Your task to perform on an android device: change notification settings in the gmail app Image 0: 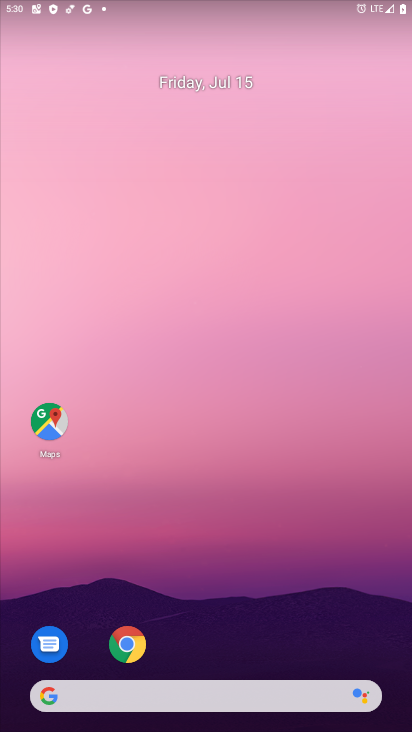
Step 0: drag from (215, 655) to (231, 28)
Your task to perform on an android device: change notification settings in the gmail app Image 1: 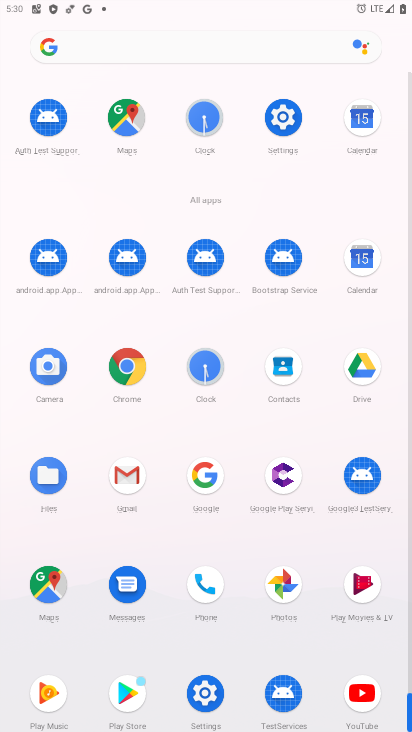
Step 1: click (137, 468)
Your task to perform on an android device: change notification settings in the gmail app Image 2: 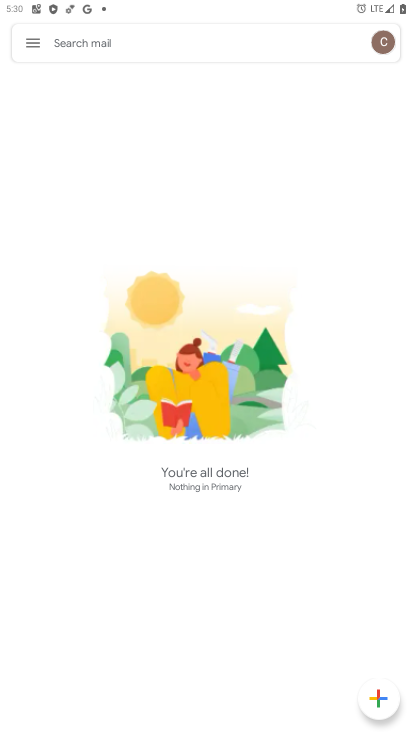
Step 2: click (40, 48)
Your task to perform on an android device: change notification settings in the gmail app Image 3: 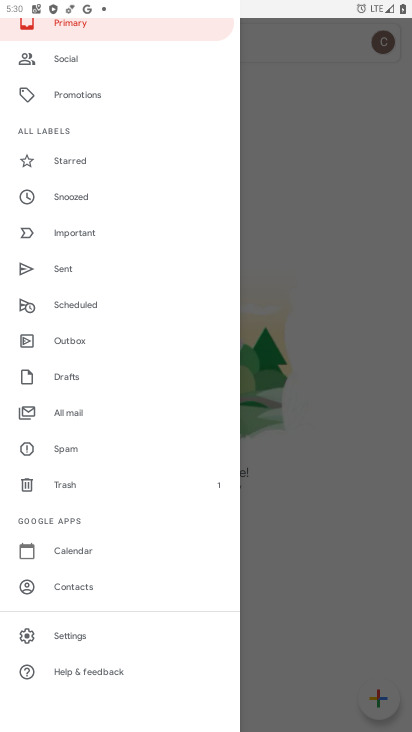
Step 3: drag from (97, 626) to (88, 487)
Your task to perform on an android device: change notification settings in the gmail app Image 4: 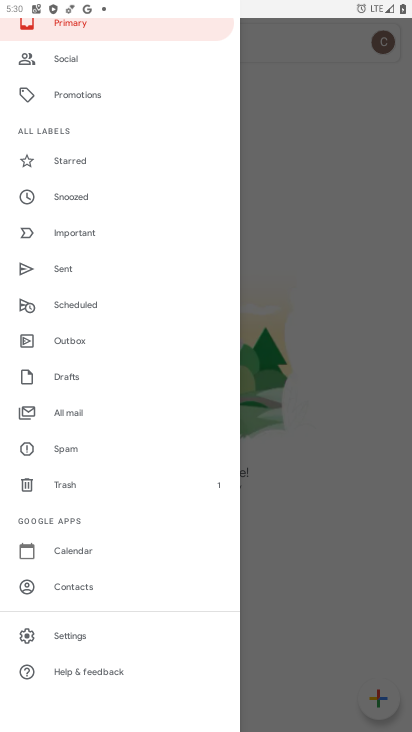
Step 4: click (63, 633)
Your task to perform on an android device: change notification settings in the gmail app Image 5: 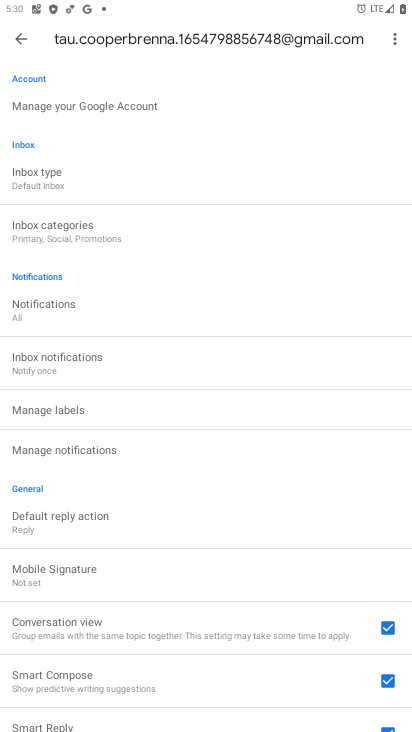
Step 5: click (74, 314)
Your task to perform on an android device: change notification settings in the gmail app Image 6: 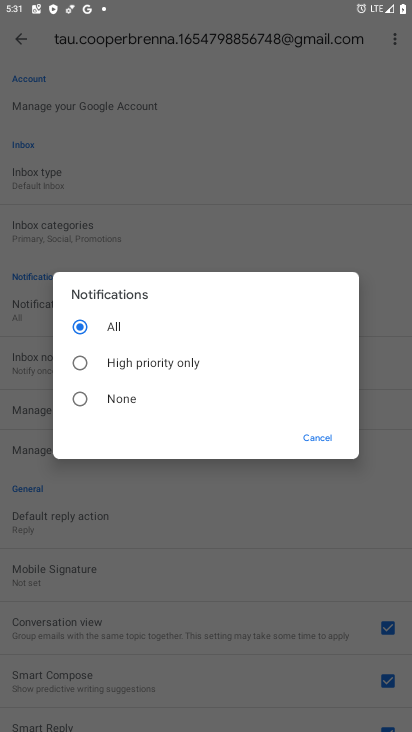
Step 6: drag from (113, 361) to (162, 128)
Your task to perform on an android device: change notification settings in the gmail app Image 7: 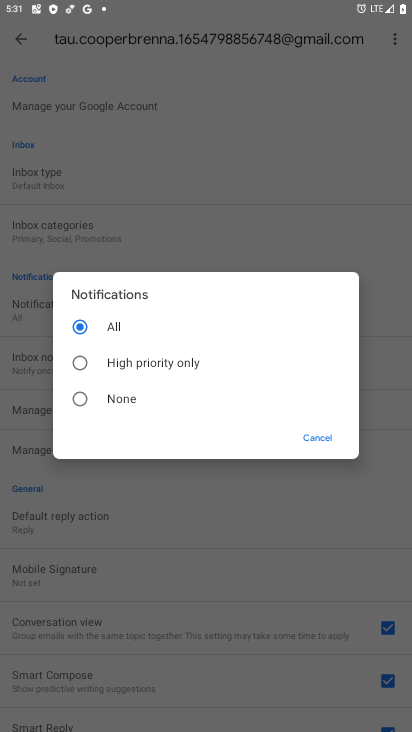
Step 7: click (162, 128)
Your task to perform on an android device: change notification settings in the gmail app Image 8: 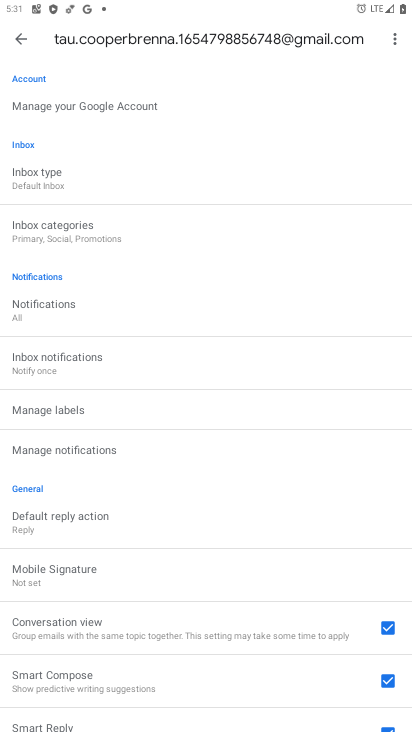
Step 8: click (23, 41)
Your task to perform on an android device: change notification settings in the gmail app Image 9: 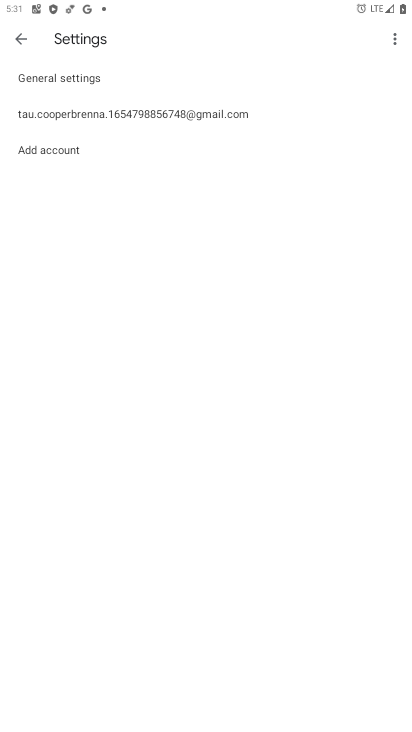
Step 9: click (76, 65)
Your task to perform on an android device: change notification settings in the gmail app Image 10: 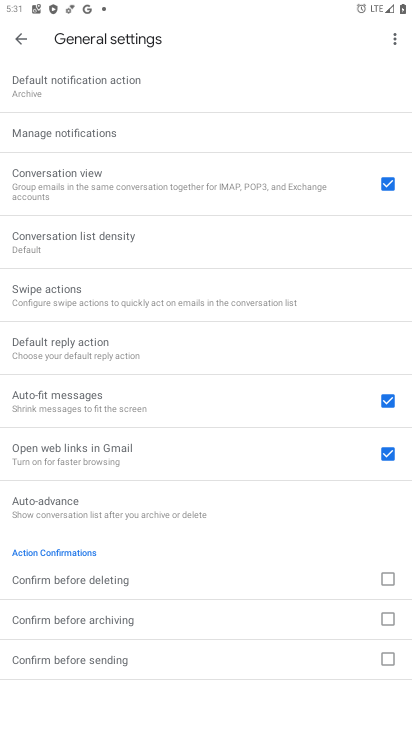
Step 10: click (123, 142)
Your task to perform on an android device: change notification settings in the gmail app Image 11: 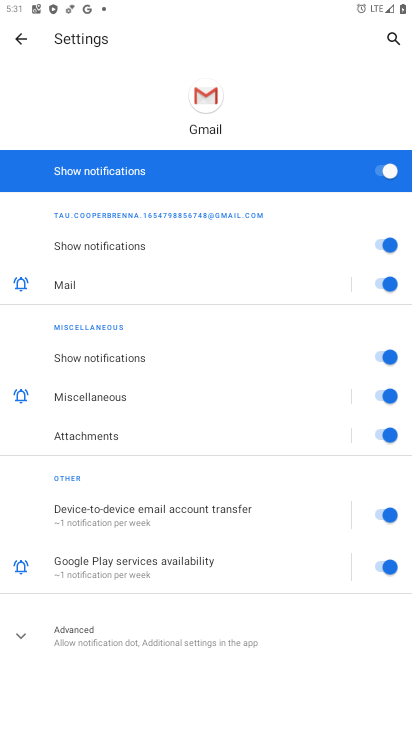
Step 11: click (377, 178)
Your task to perform on an android device: change notification settings in the gmail app Image 12: 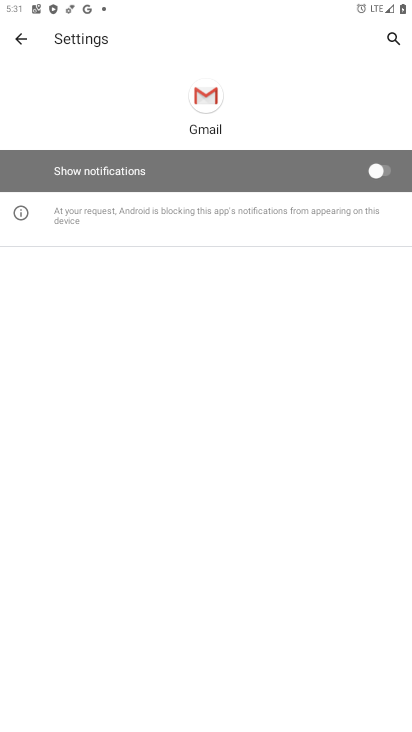
Step 12: task complete